Your task to perform on an android device: change alarm snooze length Image 0: 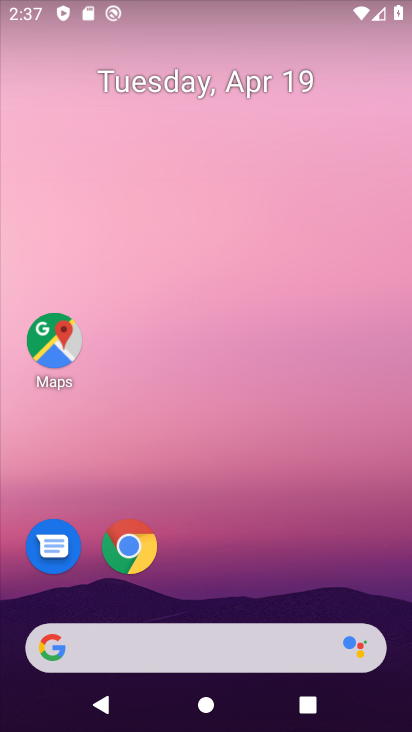
Step 0: drag from (138, 496) to (129, 159)
Your task to perform on an android device: change alarm snooze length Image 1: 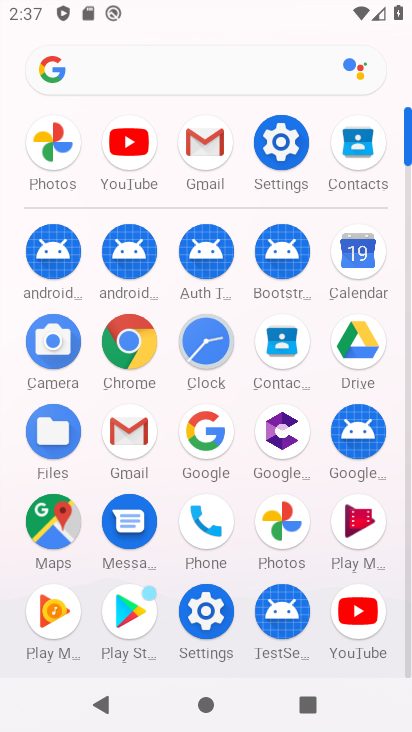
Step 1: click (204, 359)
Your task to perform on an android device: change alarm snooze length Image 2: 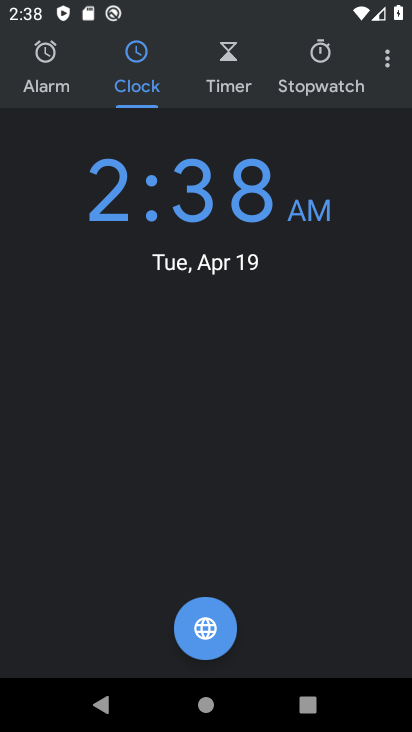
Step 2: click (387, 52)
Your task to perform on an android device: change alarm snooze length Image 3: 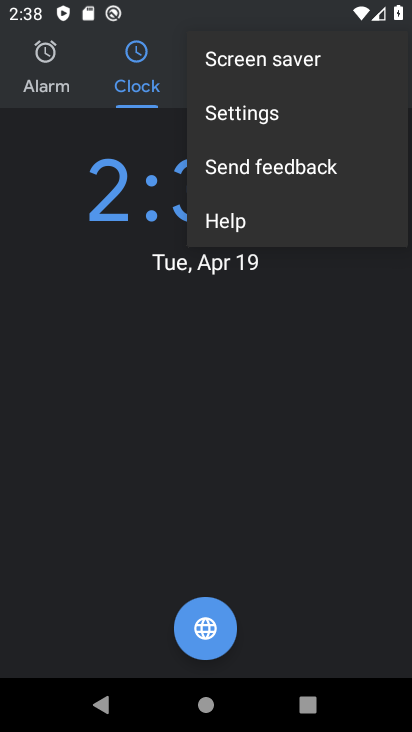
Step 3: click (278, 108)
Your task to perform on an android device: change alarm snooze length Image 4: 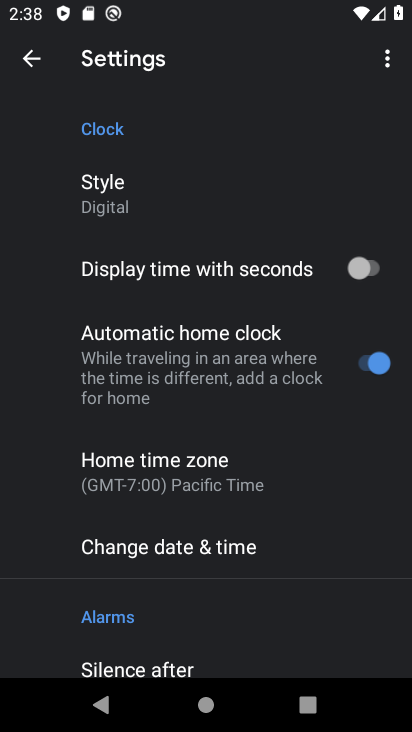
Step 4: drag from (265, 501) to (178, 27)
Your task to perform on an android device: change alarm snooze length Image 5: 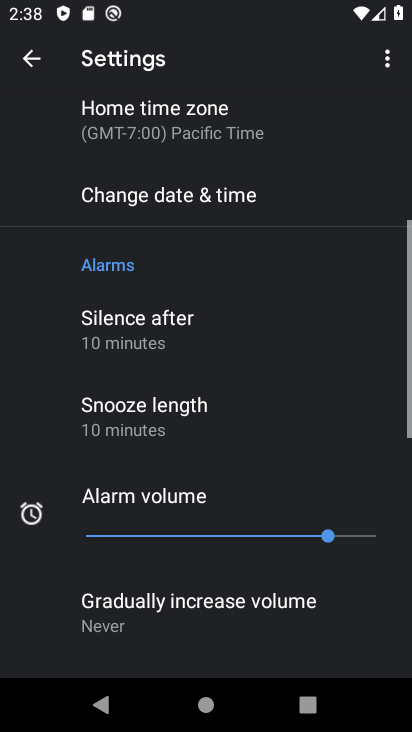
Step 5: click (164, 393)
Your task to perform on an android device: change alarm snooze length Image 6: 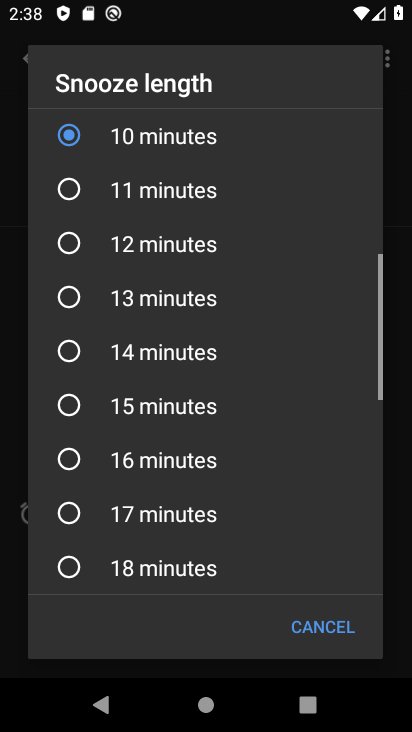
Step 6: click (105, 193)
Your task to perform on an android device: change alarm snooze length Image 7: 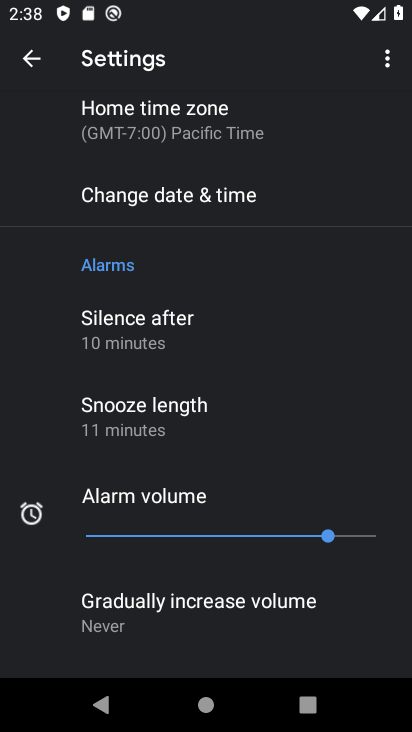
Step 7: task complete